Your task to perform on an android device: Open privacy settings Image 0: 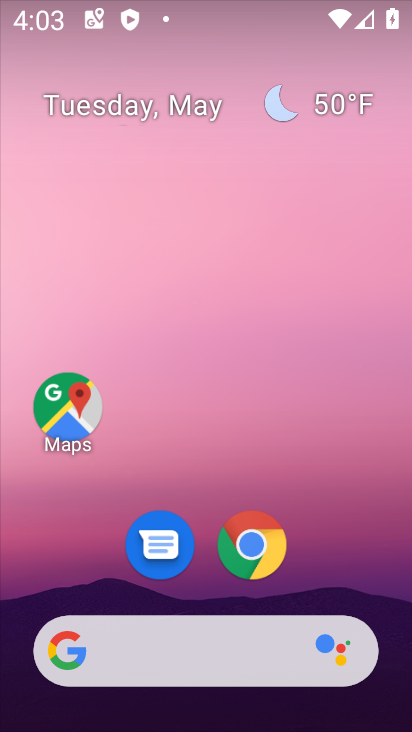
Step 0: drag from (204, 592) to (243, 159)
Your task to perform on an android device: Open privacy settings Image 1: 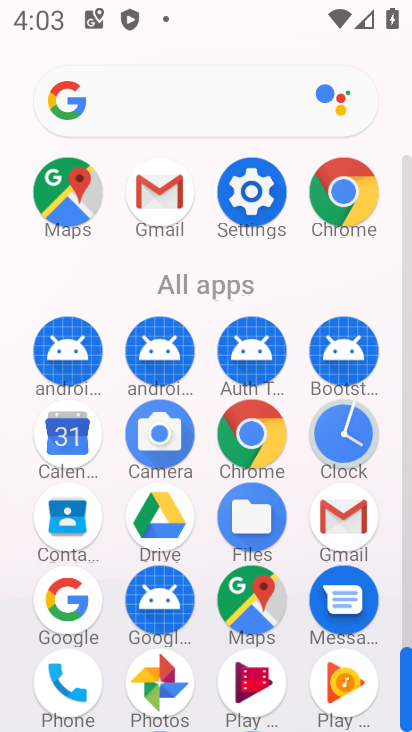
Step 1: click (258, 193)
Your task to perform on an android device: Open privacy settings Image 2: 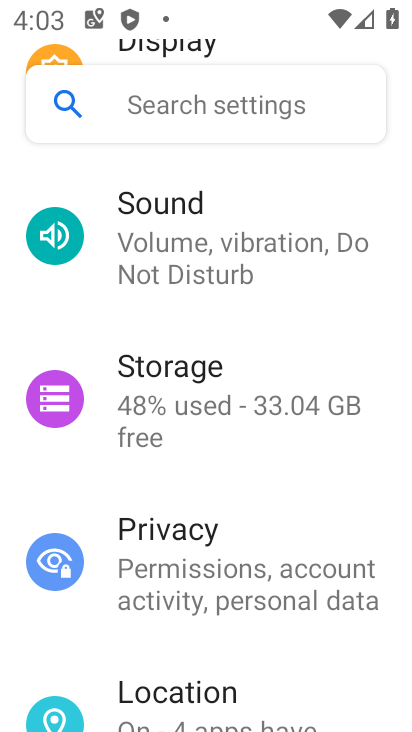
Step 2: click (200, 530)
Your task to perform on an android device: Open privacy settings Image 3: 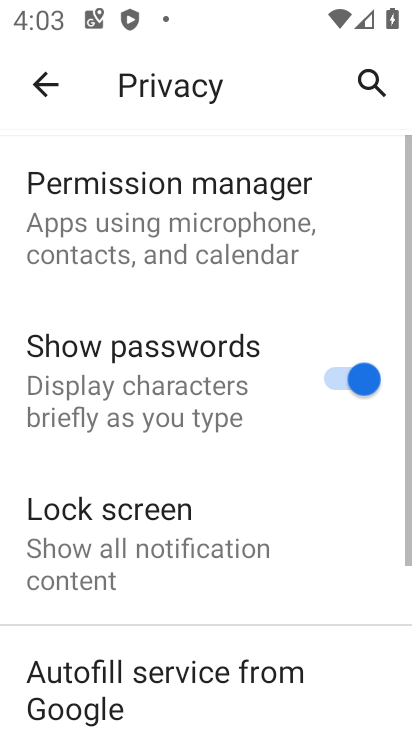
Step 3: task complete